Your task to perform on an android device: Open privacy settings Image 0: 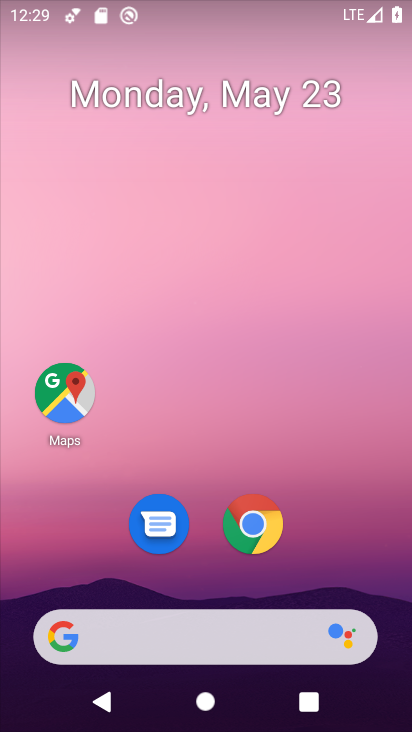
Step 0: drag from (311, 528) to (281, 38)
Your task to perform on an android device: Open privacy settings Image 1: 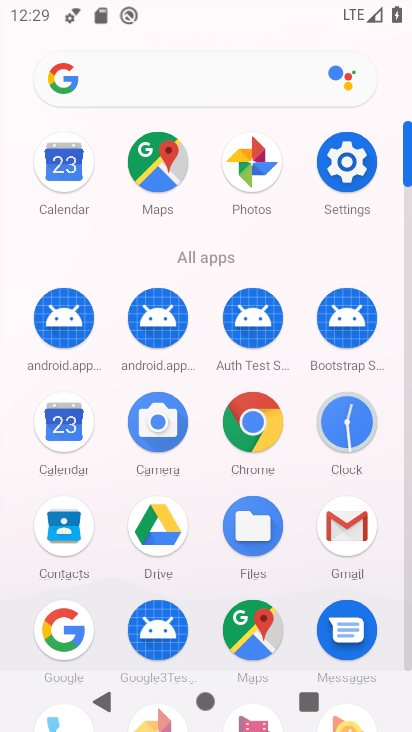
Step 1: click (346, 160)
Your task to perform on an android device: Open privacy settings Image 2: 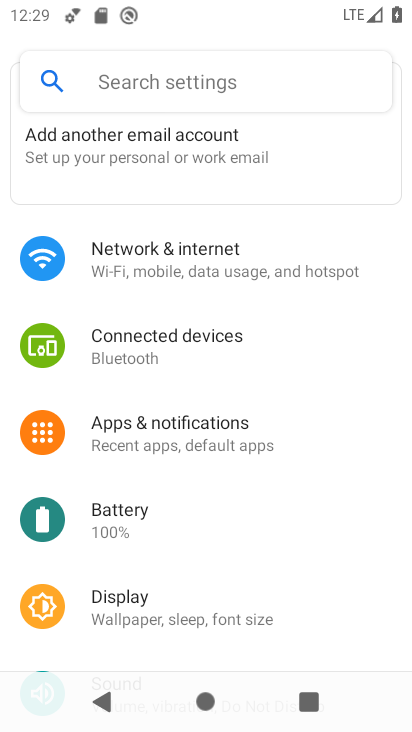
Step 2: drag from (224, 543) to (239, 153)
Your task to perform on an android device: Open privacy settings Image 3: 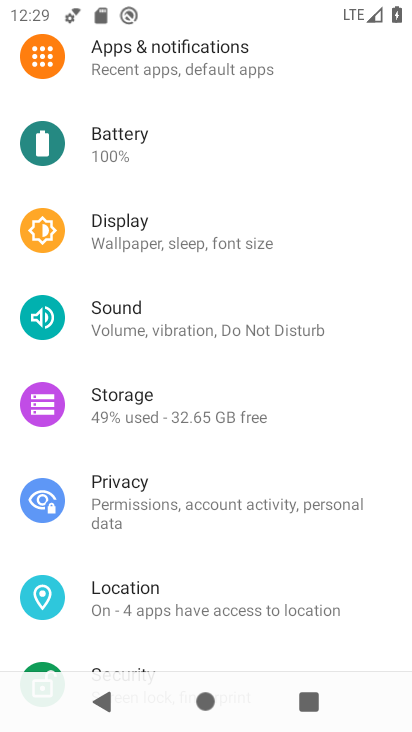
Step 3: click (200, 497)
Your task to perform on an android device: Open privacy settings Image 4: 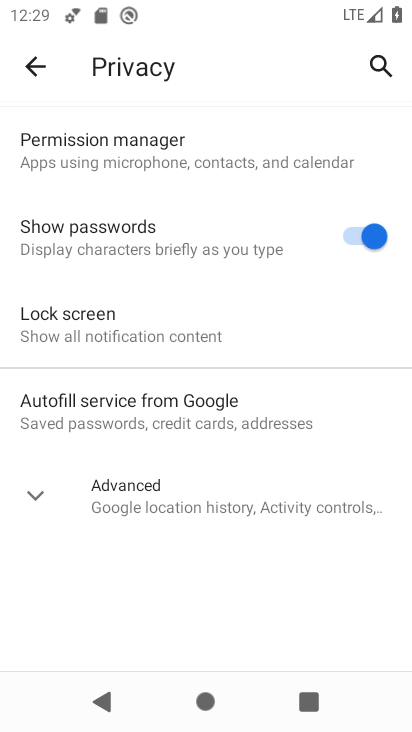
Step 4: task complete